Your task to perform on an android device: Open eBay Image 0: 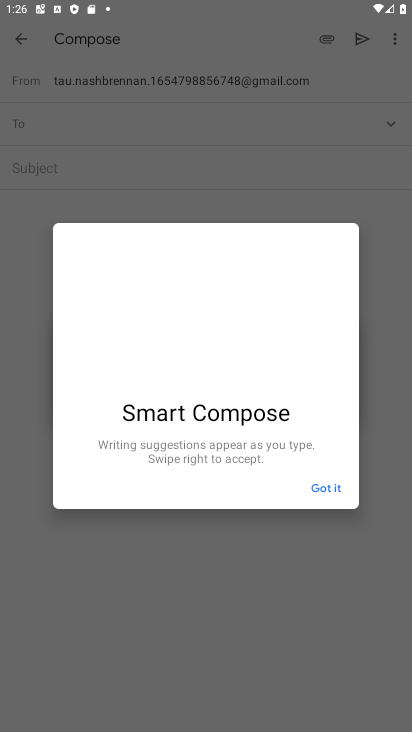
Step 0: press home button
Your task to perform on an android device: Open eBay Image 1: 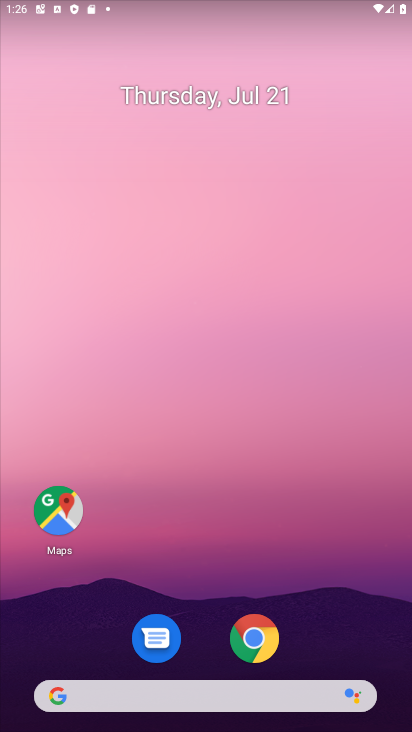
Step 1: click (202, 698)
Your task to perform on an android device: Open eBay Image 2: 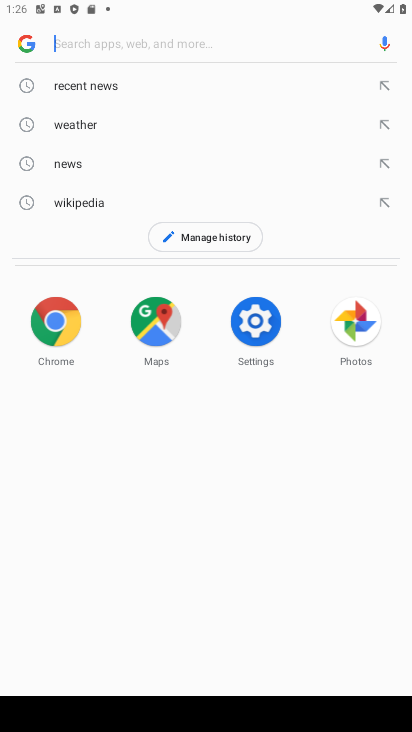
Step 2: type "ebay"
Your task to perform on an android device: Open eBay Image 3: 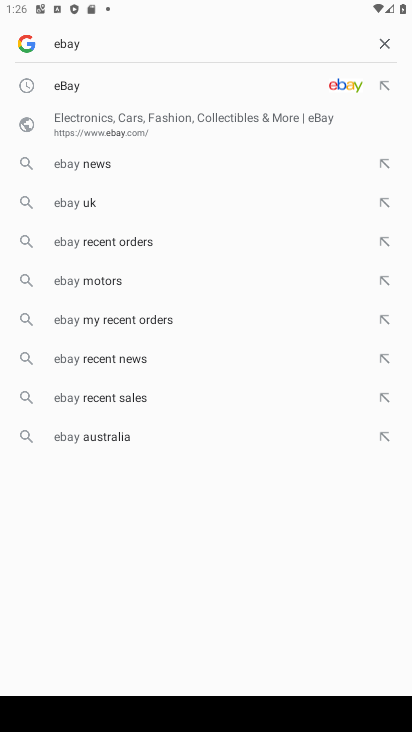
Step 3: click (346, 77)
Your task to perform on an android device: Open eBay Image 4: 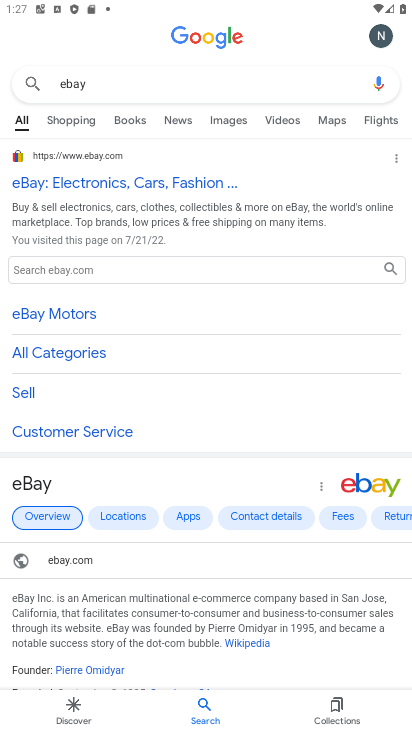
Step 4: click (94, 153)
Your task to perform on an android device: Open eBay Image 5: 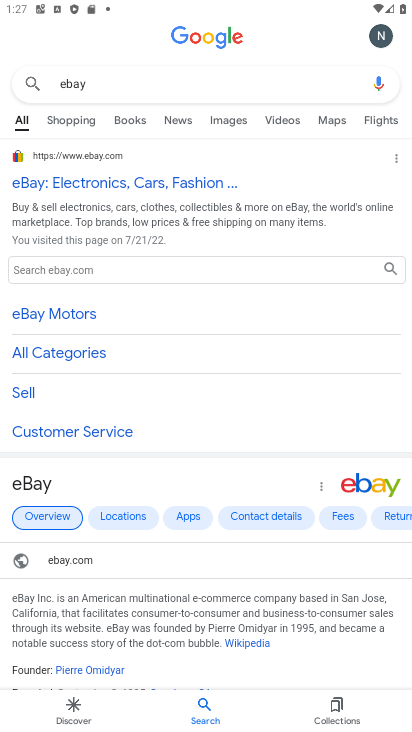
Step 5: click (100, 180)
Your task to perform on an android device: Open eBay Image 6: 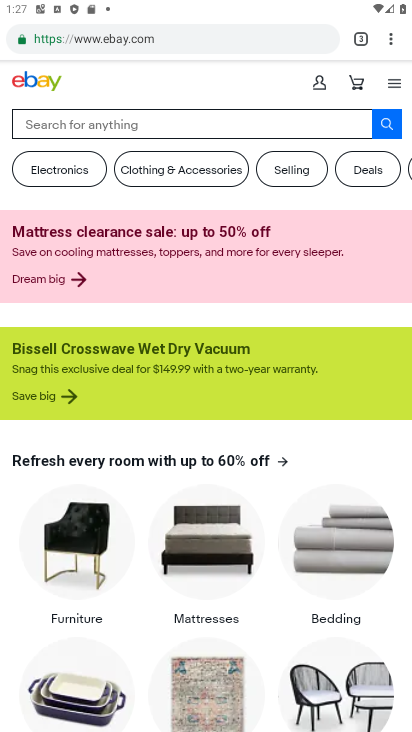
Step 6: task complete